Your task to perform on an android device: turn vacation reply on in the gmail app Image 0: 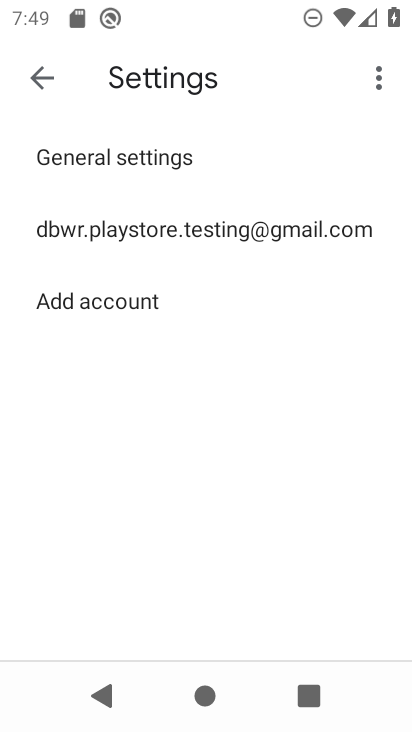
Step 0: click (271, 224)
Your task to perform on an android device: turn vacation reply on in the gmail app Image 1: 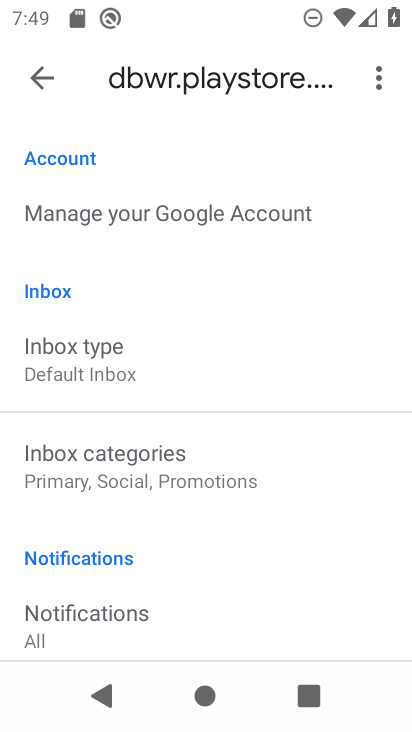
Step 1: drag from (157, 553) to (189, 107)
Your task to perform on an android device: turn vacation reply on in the gmail app Image 2: 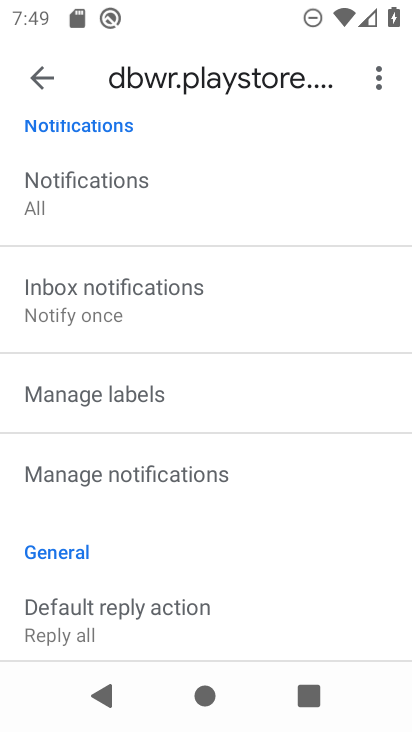
Step 2: drag from (203, 510) to (241, 0)
Your task to perform on an android device: turn vacation reply on in the gmail app Image 3: 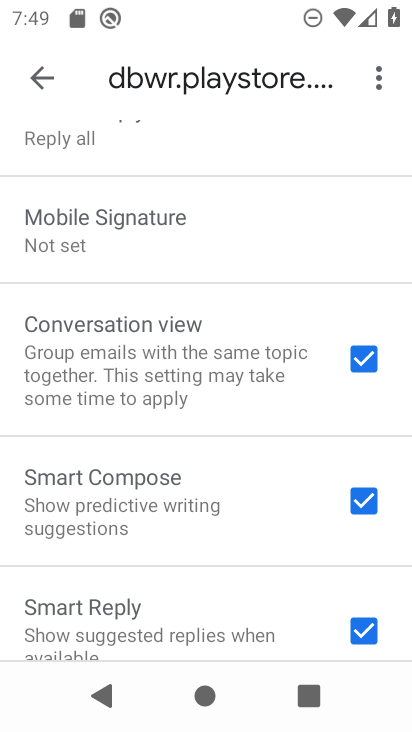
Step 3: drag from (192, 598) to (244, 195)
Your task to perform on an android device: turn vacation reply on in the gmail app Image 4: 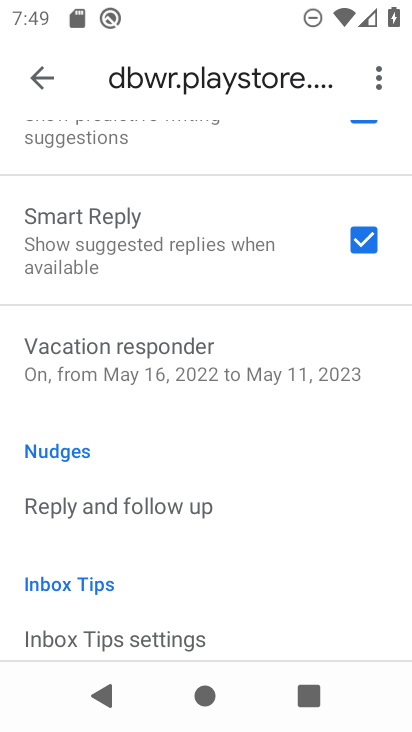
Step 4: click (231, 347)
Your task to perform on an android device: turn vacation reply on in the gmail app Image 5: 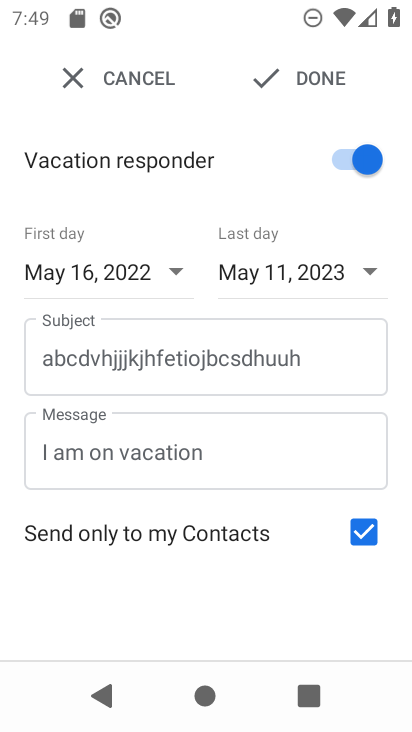
Step 5: task complete